Your task to perform on an android device: Search for "corsair k70" on walmart.com, select the first entry, add it to the cart, then select checkout. Image 0: 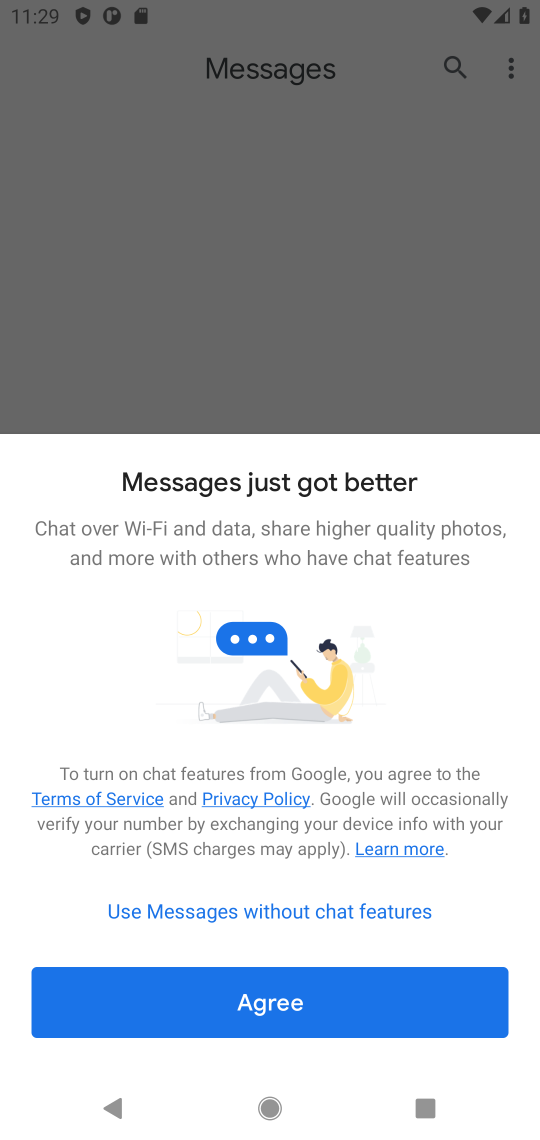
Step 0: press home button
Your task to perform on an android device: Search for "corsair k70" on walmart.com, select the first entry, add it to the cart, then select checkout. Image 1: 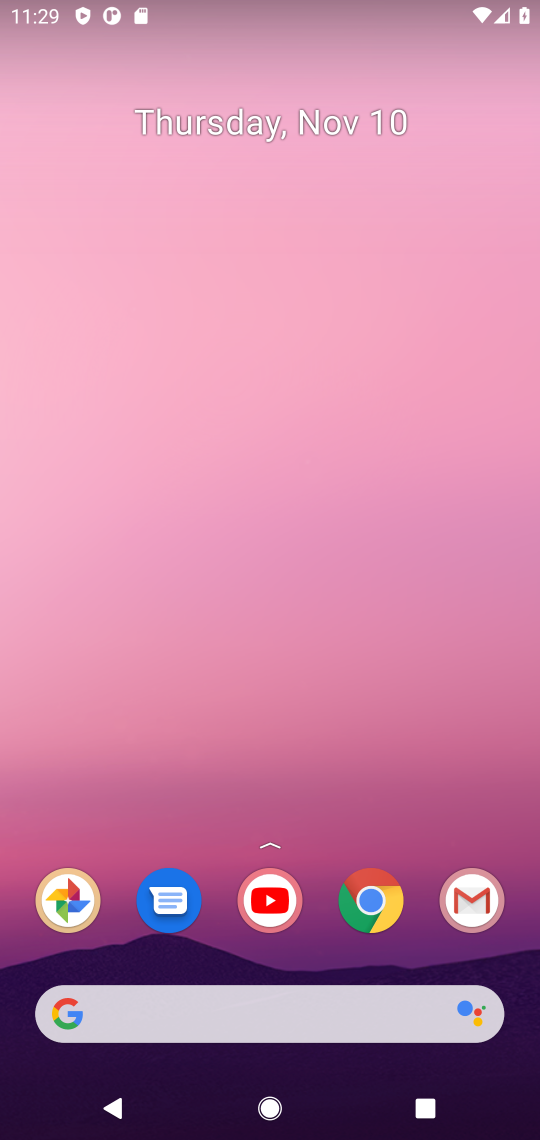
Step 1: click (362, 900)
Your task to perform on an android device: Search for "corsair k70" on walmart.com, select the first entry, add it to the cart, then select checkout. Image 2: 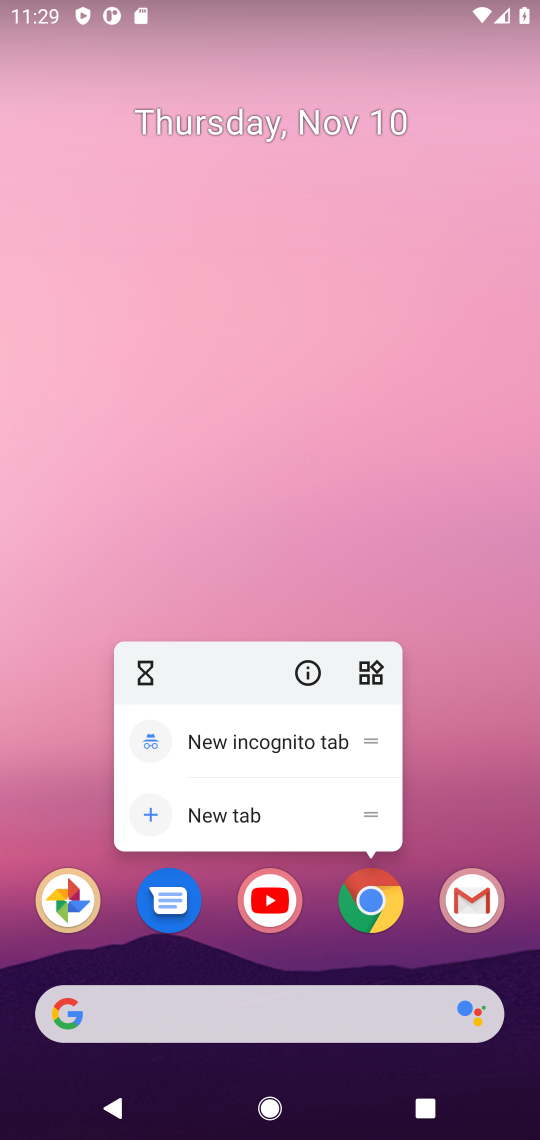
Step 2: click (364, 900)
Your task to perform on an android device: Search for "corsair k70" on walmart.com, select the first entry, add it to the cart, then select checkout. Image 3: 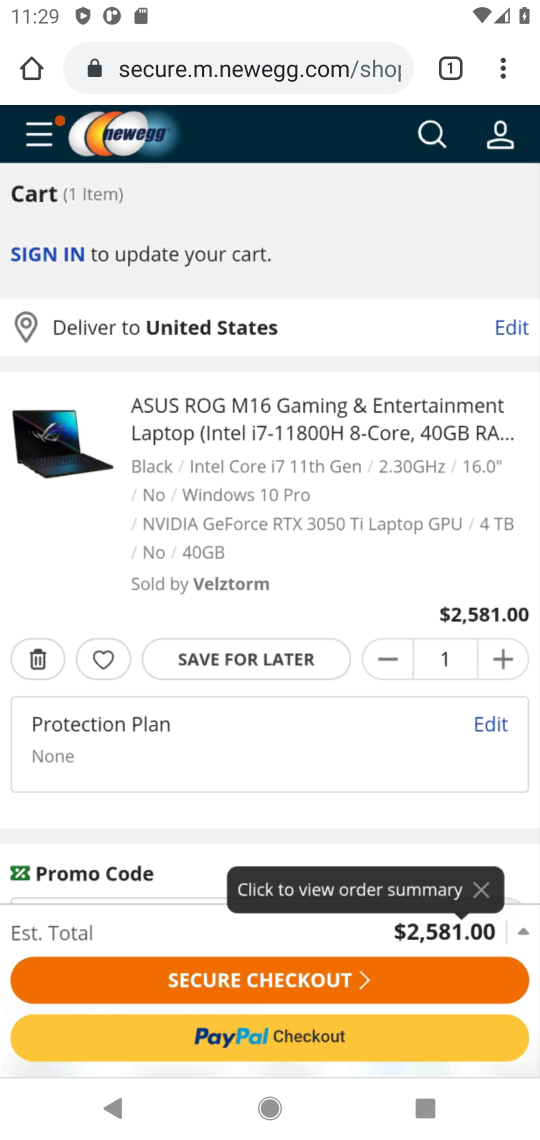
Step 3: click (349, 66)
Your task to perform on an android device: Search for "corsair k70" on walmart.com, select the first entry, add it to the cart, then select checkout. Image 4: 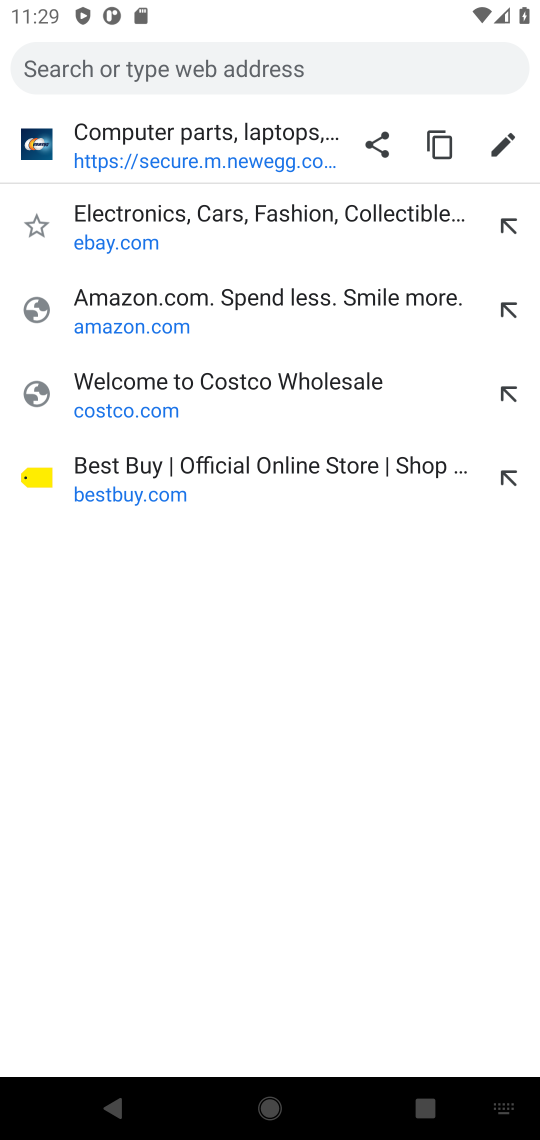
Step 4: type "walmart.com"
Your task to perform on an android device: Search for "corsair k70" on walmart.com, select the first entry, add it to the cart, then select checkout. Image 5: 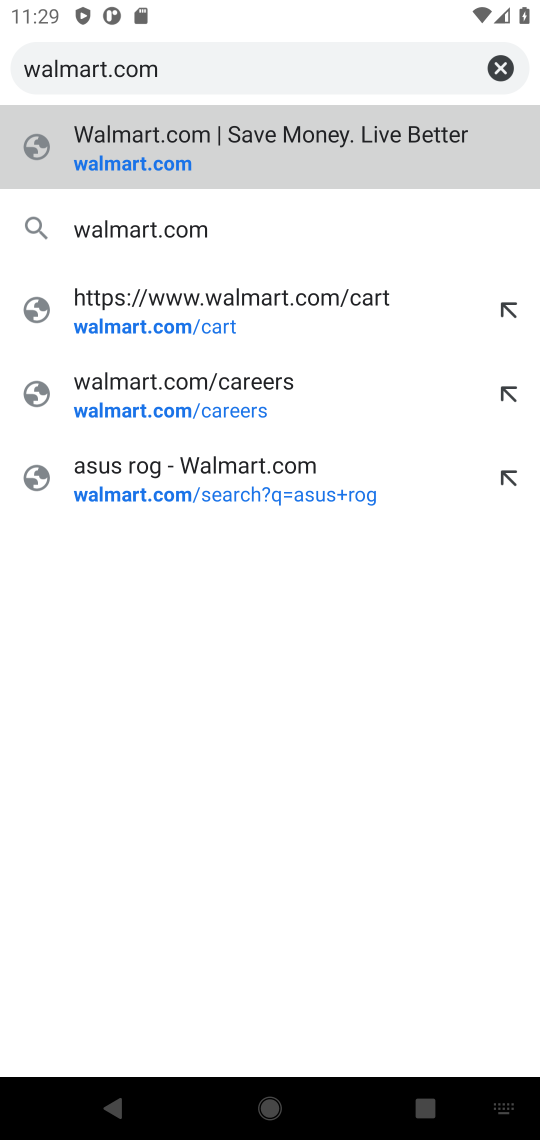
Step 5: press enter
Your task to perform on an android device: Search for "corsair k70" on walmart.com, select the first entry, add it to the cart, then select checkout. Image 6: 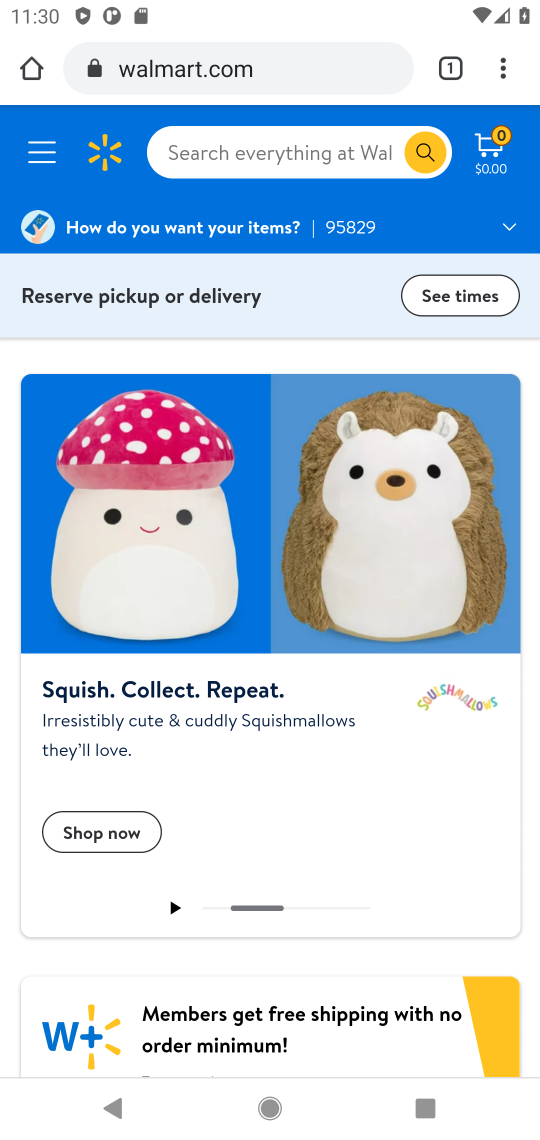
Step 6: click (323, 152)
Your task to perform on an android device: Search for "corsair k70" on walmart.com, select the first entry, add it to the cart, then select checkout. Image 7: 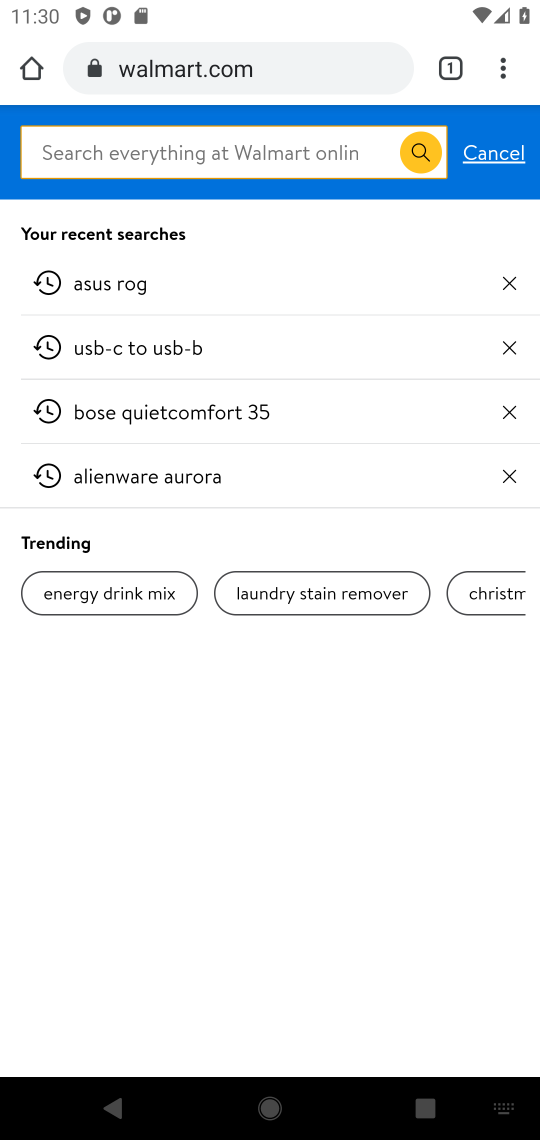
Step 7: type "corsair k70"
Your task to perform on an android device: Search for "corsair k70" on walmart.com, select the first entry, add it to the cart, then select checkout. Image 8: 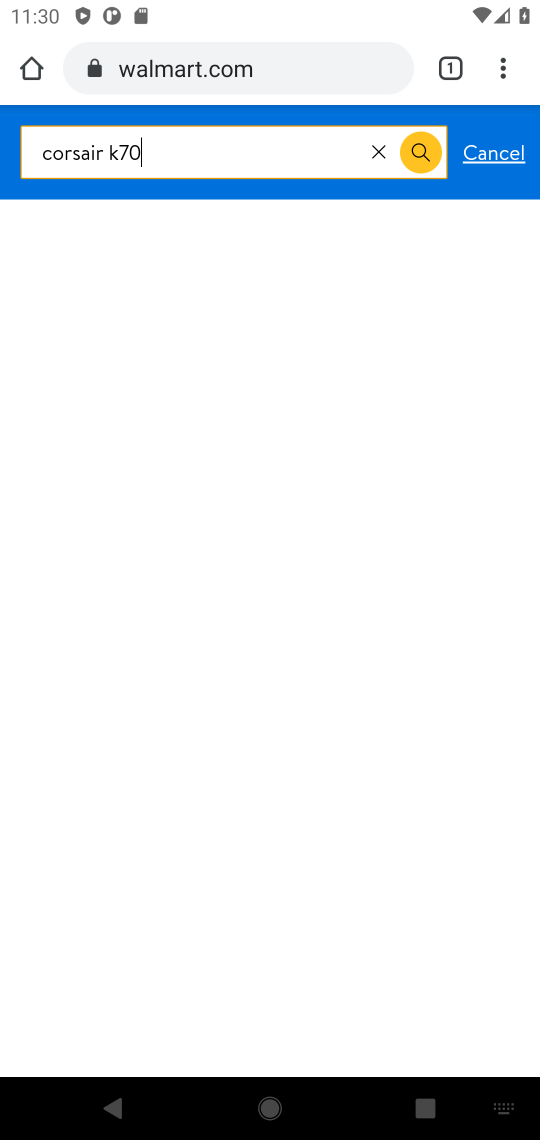
Step 8: press enter
Your task to perform on an android device: Search for "corsair k70" on walmart.com, select the first entry, add it to the cart, then select checkout. Image 9: 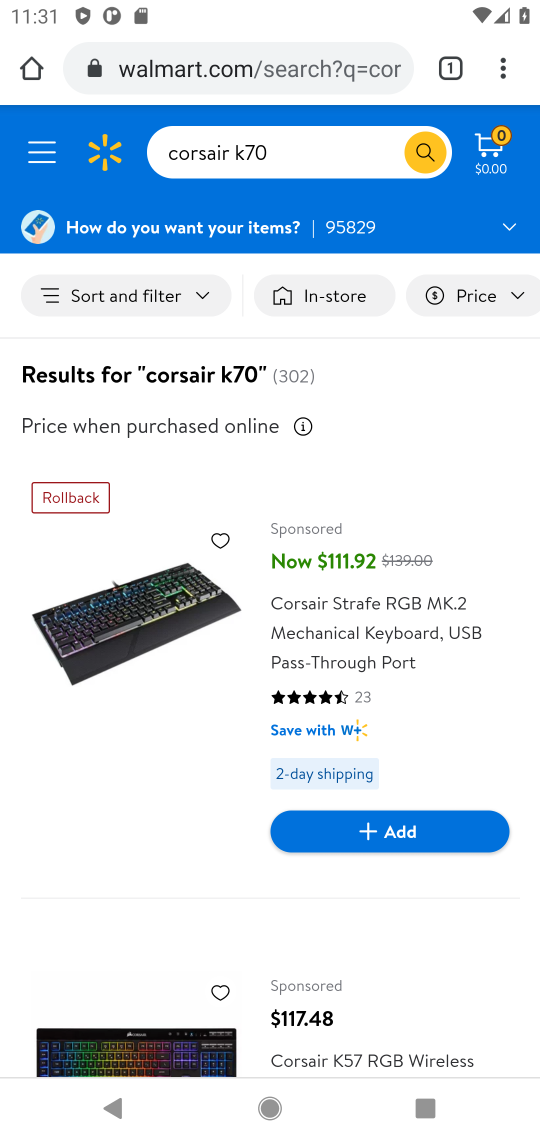
Step 9: task complete